Your task to perform on an android device: Open the map Image 0: 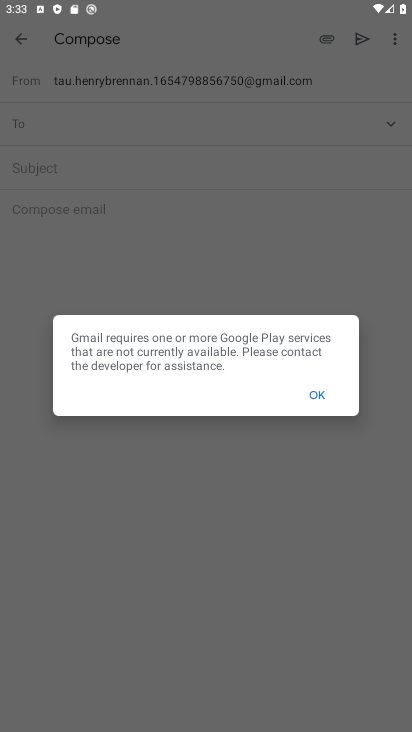
Step 0: press home button
Your task to perform on an android device: Open the map Image 1: 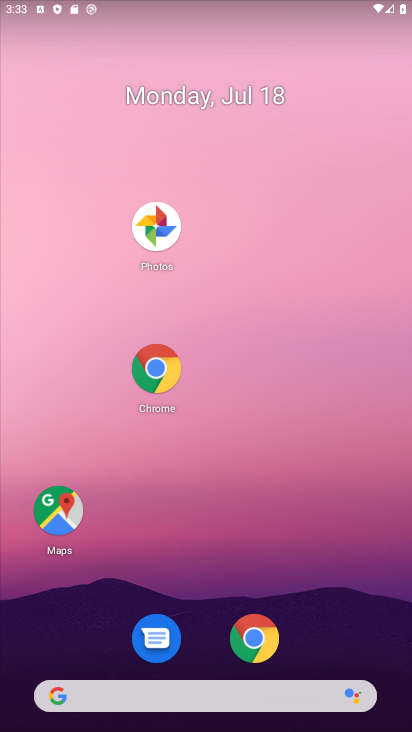
Step 1: click (53, 516)
Your task to perform on an android device: Open the map Image 2: 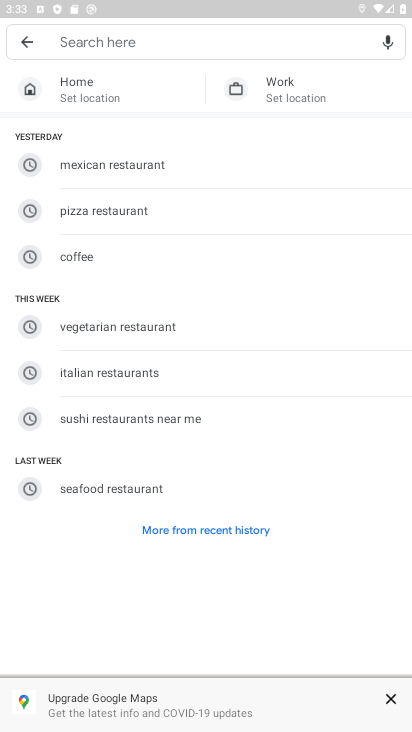
Step 2: task complete